Your task to perform on an android device: turn off picture-in-picture Image 0: 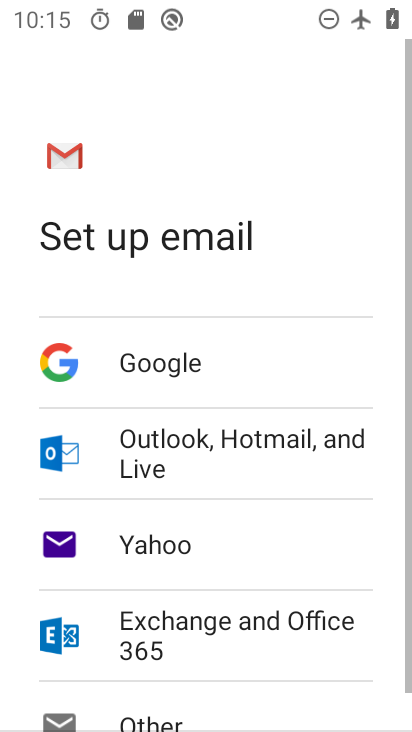
Step 0: press back button
Your task to perform on an android device: turn off picture-in-picture Image 1: 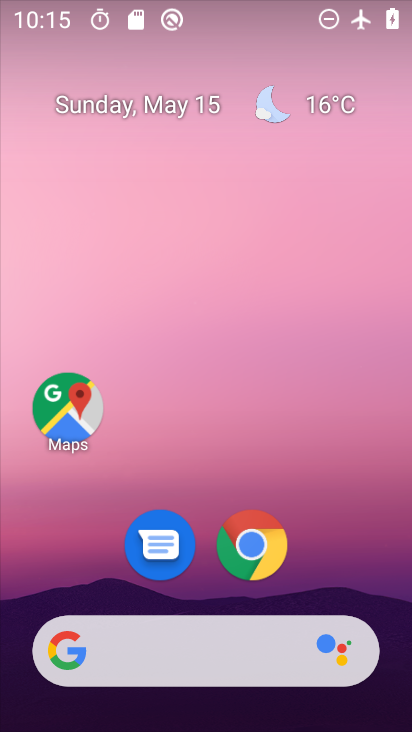
Step 1: click (251, 545)
Your task to perform on an android device: turn off picture-in-picture Image 2: 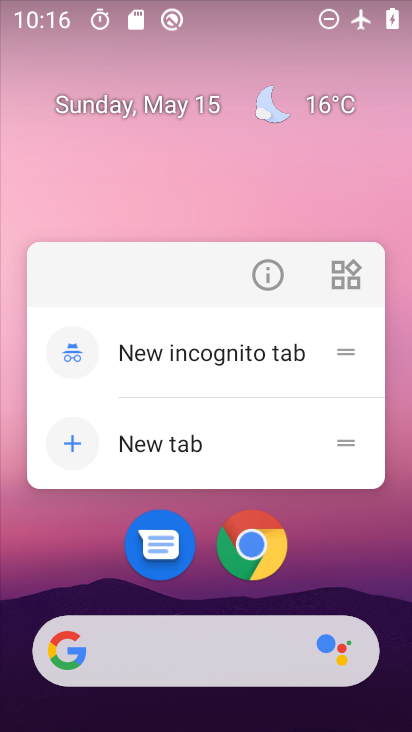
Step 2: click (266, 271)
Your task to perform on an android device: turn off picture-in-picture Image 3: 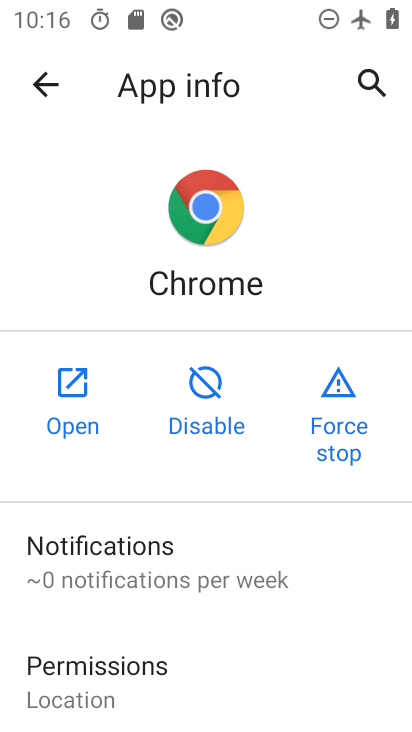
Step 3: drag from (190, 476) to (306, 270)
Your task to perform on an android device: turn off picture-in-picture Image 4: 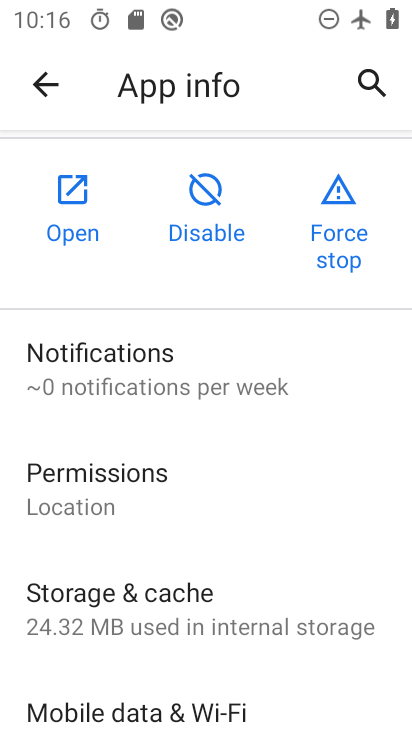
Step 4: drag from (139, 506) to (213, 375)
Your task to perform on an android device: turn off picture-in-picture Image 5: 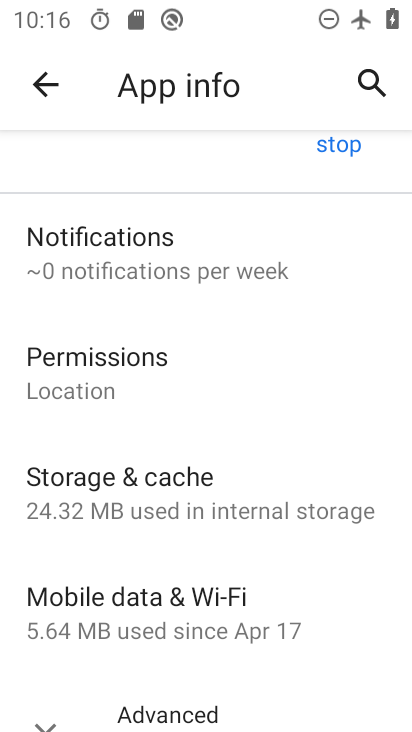
Step 5: drag from (127, 562) to (226, 385)
Your task to perform on an android device: turn off picture-in-picture Image 6: 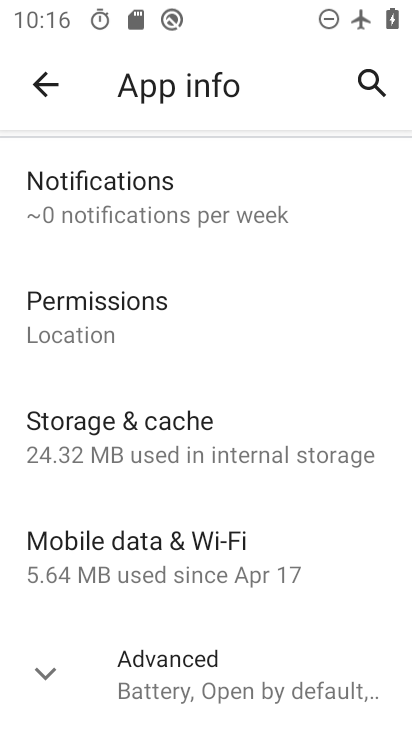
Step 6: click (156, 669)
Your task to perform on an android device: turn off picture-in-picture Image 7: 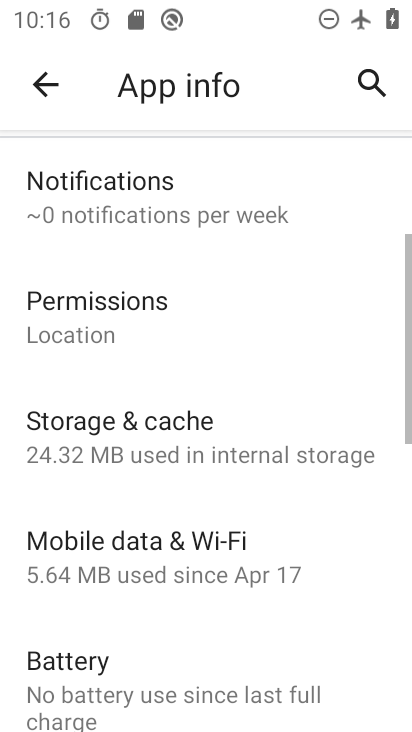
Step 7: drag from (153, 665) to (218, 507)
Your task to perform on an android device: turn off picture-in-picture Image 8: 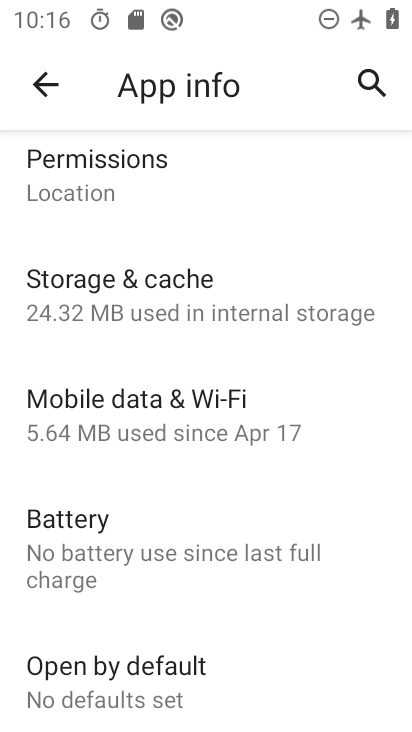
Step 8: drag from (146, 619) to (256, 479)
Your task to perform on an android device: turn off picture-in-picture Image 9: 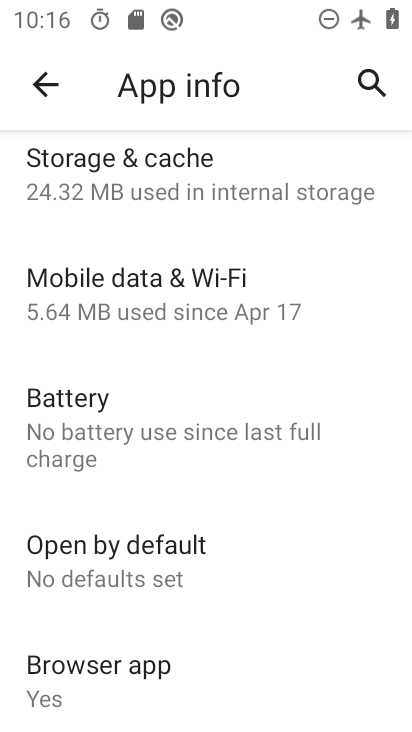
Step 9: drag from (135, 690) to (227, 547)
Your task to perform on an android device: turn off picture-in-picture Image 10: 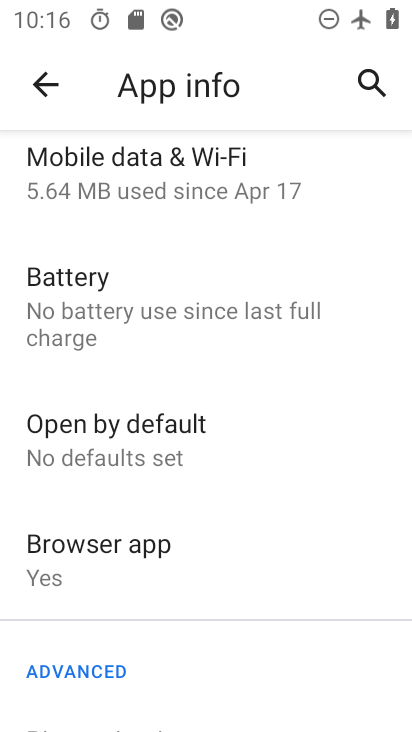
Step 10: drag from (147, 687) to (281, 522)
Your task to perform on an android device: turn off picture-in-picture Image 11: 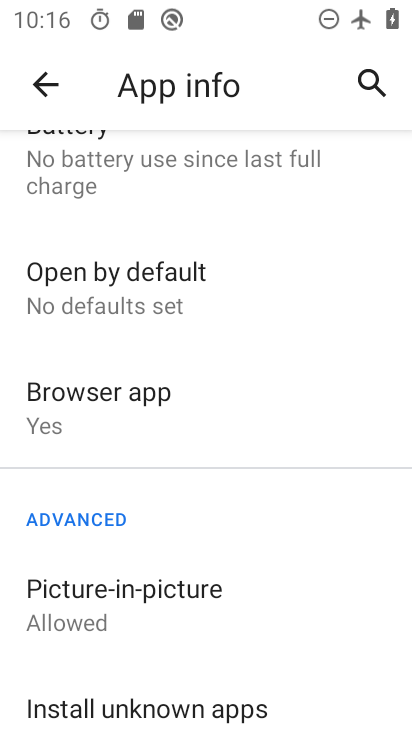
Step 11: click (189, 604)
Your task to perform on an android device: turn off picture-in-picture Image 12: 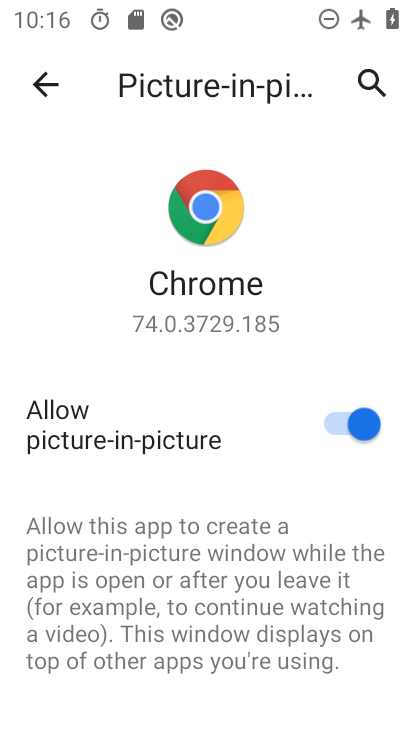
Step 12: click (358, 432)
Your task to perform on an android device: turn off picture-in-picture Image 13: 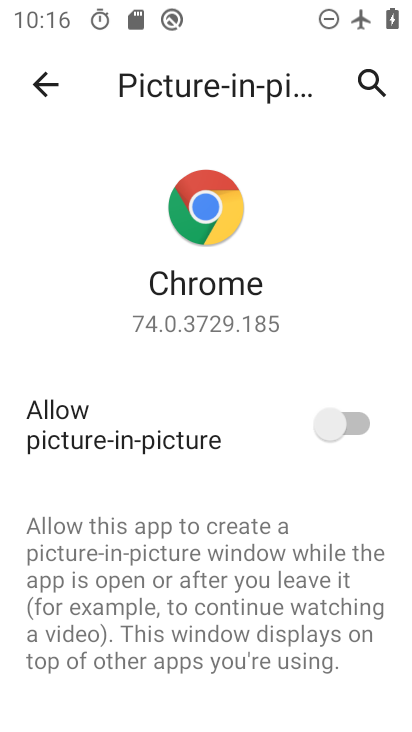
Step 13: task complete